Your task to perform on an android device: check google app version Image 0: 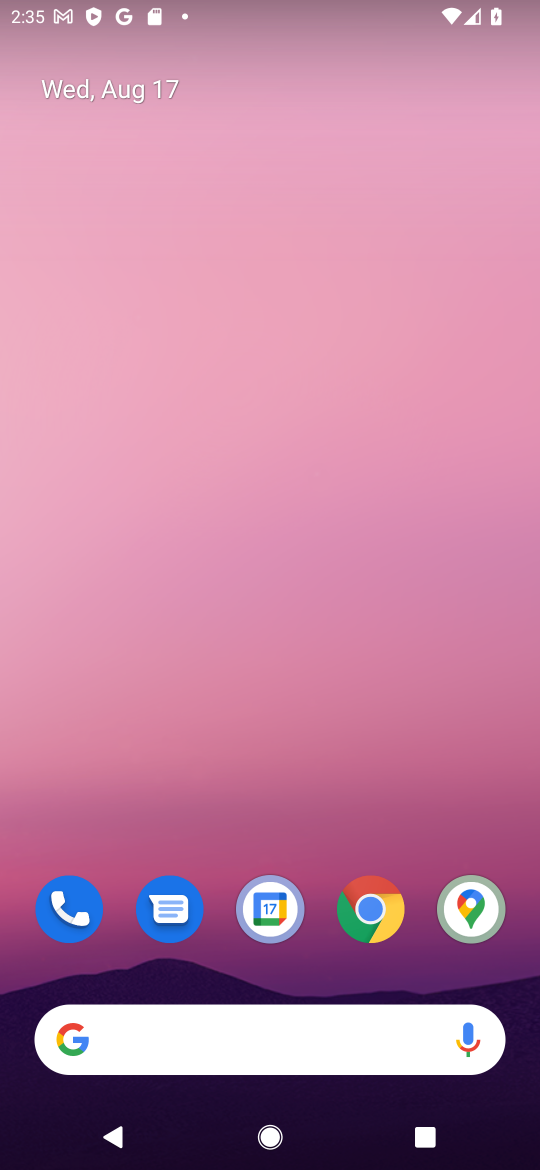
Step 0: click (212, 42)
Your task to perform on an android device: check google app version Image 1: 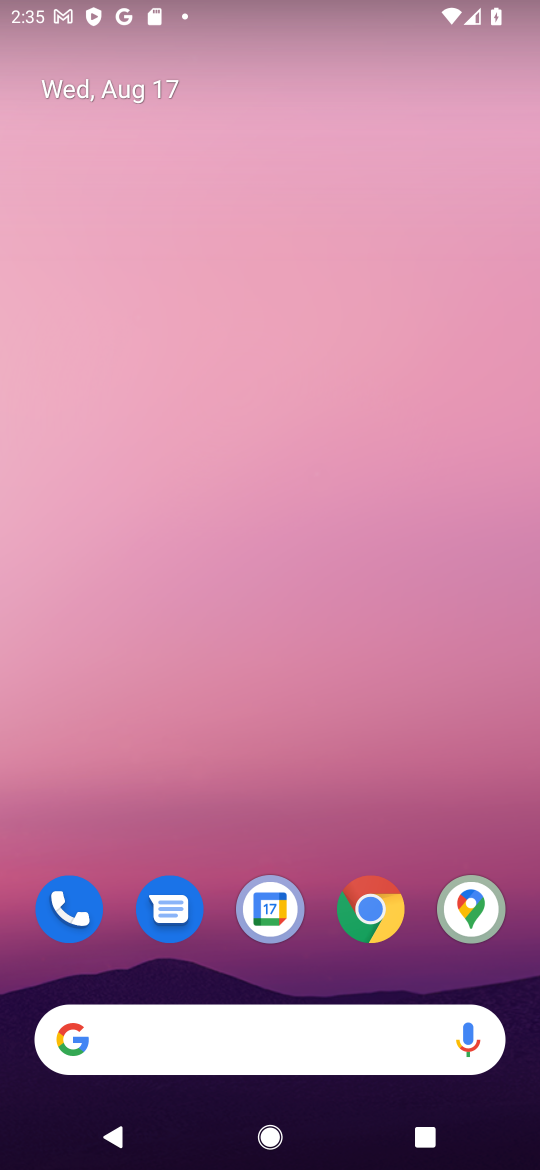
Step 1: task complete